Your task to perform on an android device: What's the weather? Image 0: 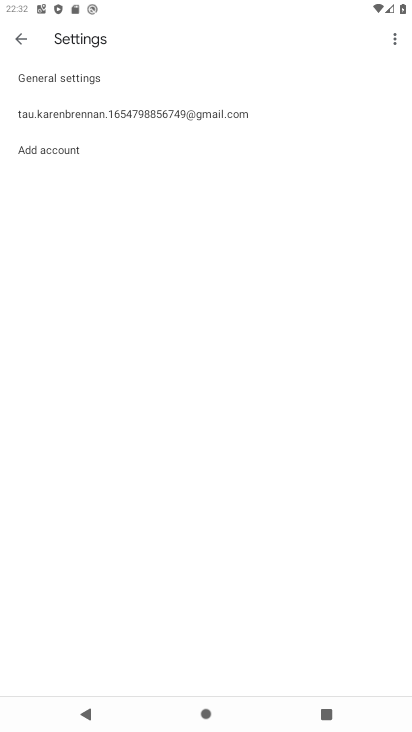
Step 0: press home button
Your task to perform on an android device: What's the weather? Image 1: 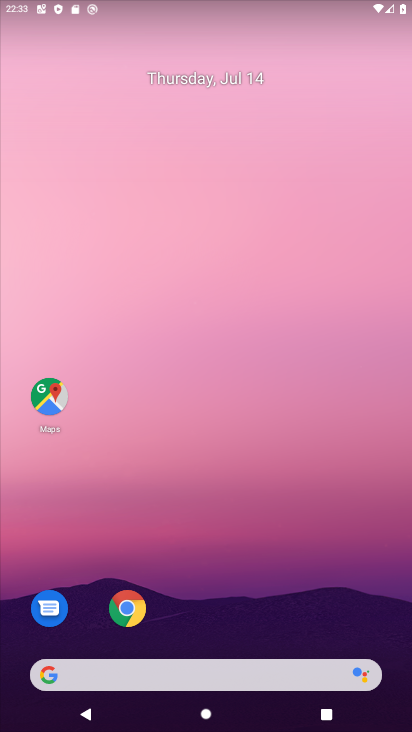
Step 1: drag from (189, 560) to (222, 3)
Your task to perform on an android device: What's the weather? Image 2: 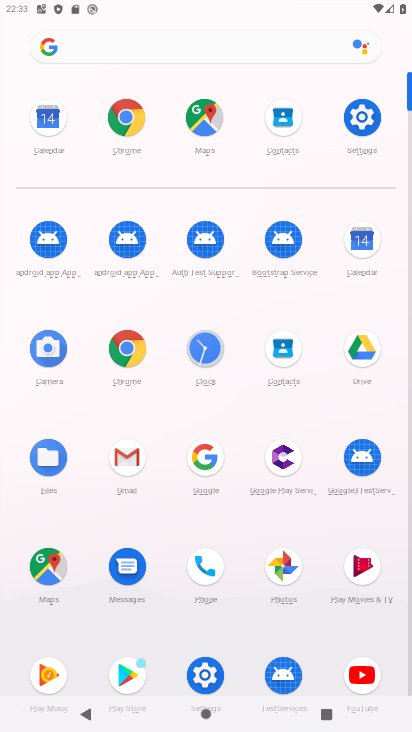
Step 2: click (196, 471)
Your task to perform on an android device: What's the weather? Image 3: 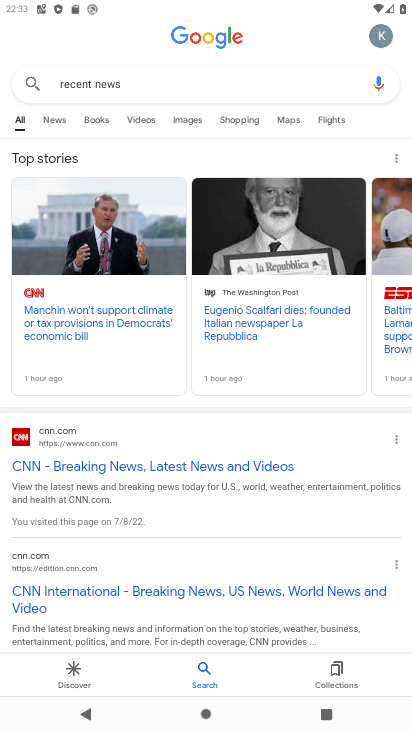
Step 3: click (251, 91)
Your task to perform on an android device: What's the weather? Image 4: 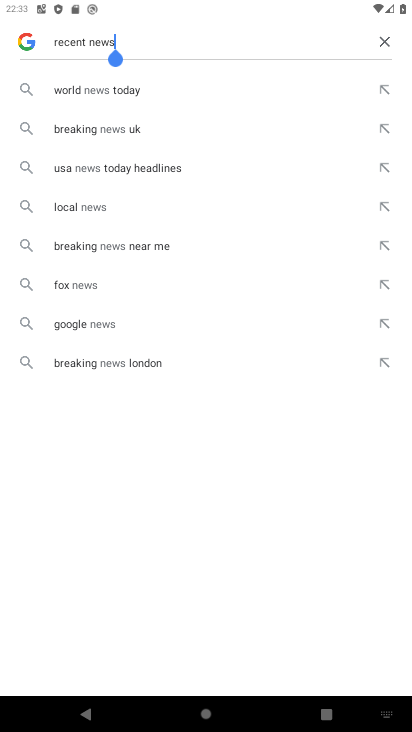
Step 4: click (382, 36)
Your task to perform on an android device: What's the weather? Image 5: 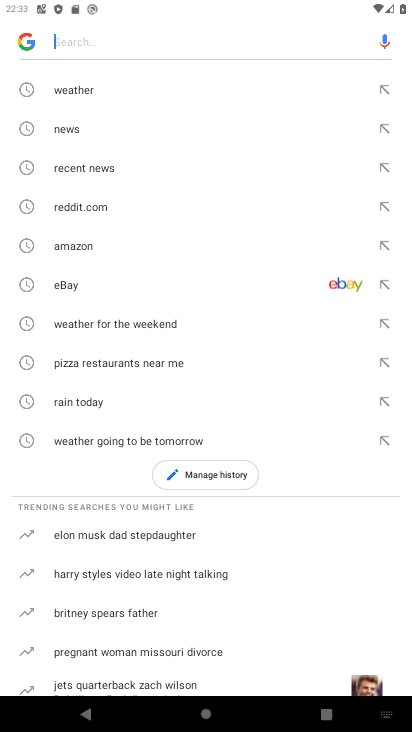
Step 5: click (86, 90)
Your task to perform on an android device: What's the weather? Image 6: 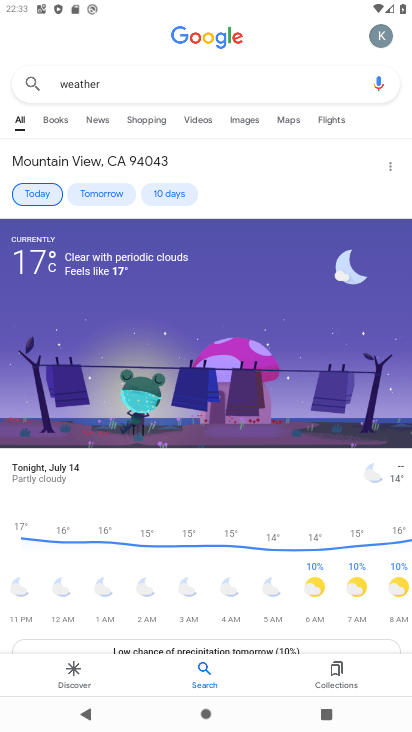
Step 6: task complete